Your task to perform on an android device: Open Wikipedia Image 0: 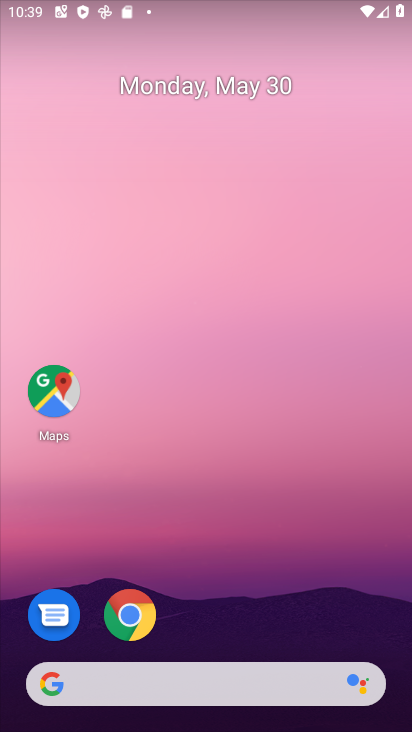
Step 0: click (126, 622)
Your task to perform on an android device: Open Wikipedia Image 1: 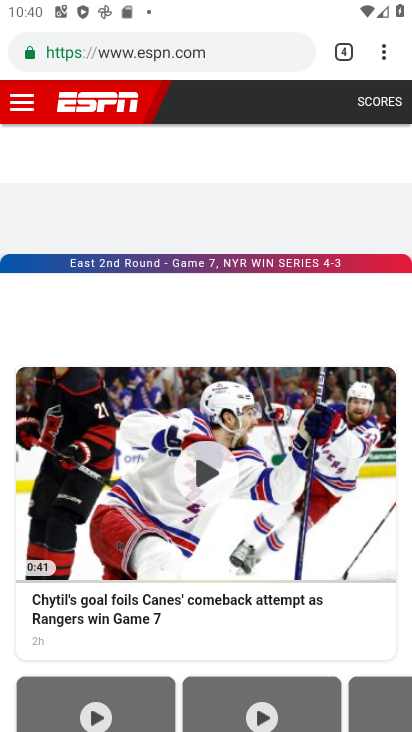
Step 1: click (348, 45)
Your task to perform on an android device: Open Wikipedia Image 2: 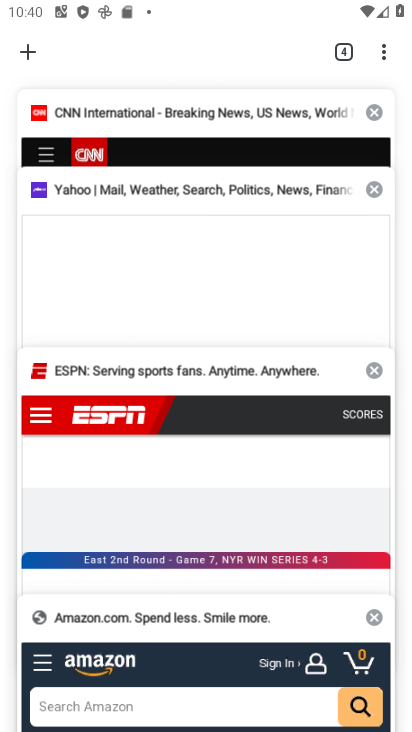
Step 2: click (21, 49)
Your task to perform on an android device: Open Wikipedia Image 3: 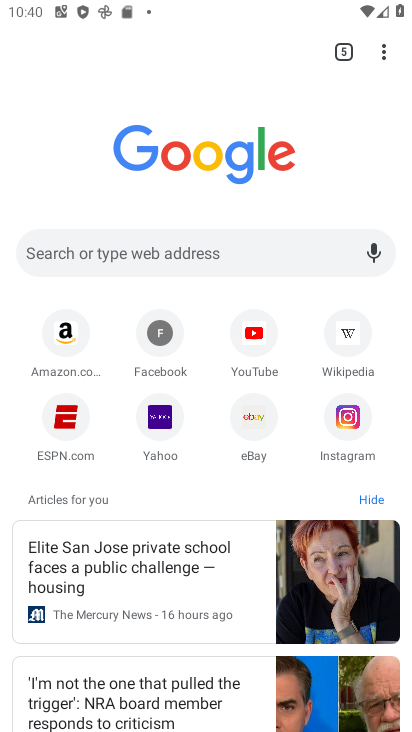
Step 3: click (341, 333)
Your task to perform on an android device: Open Wikipedia Image 4: 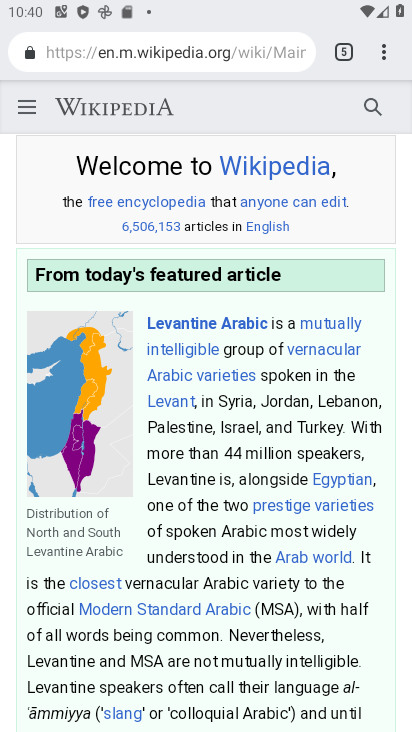
Step 4: task complete